Your task to perform on an android device: open app "Adobe Acrobat Reader: Edit PDF" (install if not already installed) Image 0: 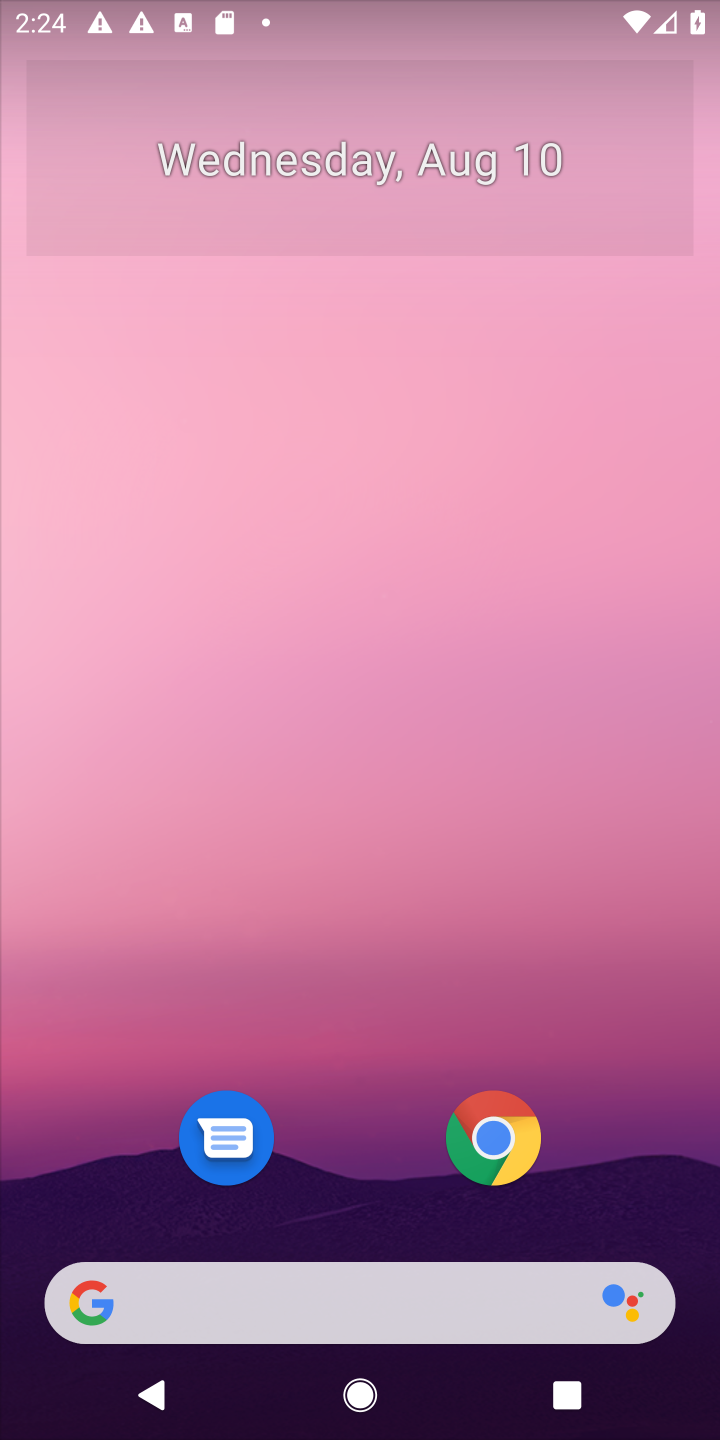
Step 0: press home button
Your task to perform on an android device: open app "Adobe Acrobat Reader: Edit PDF" (install if not already installed) Image 1: 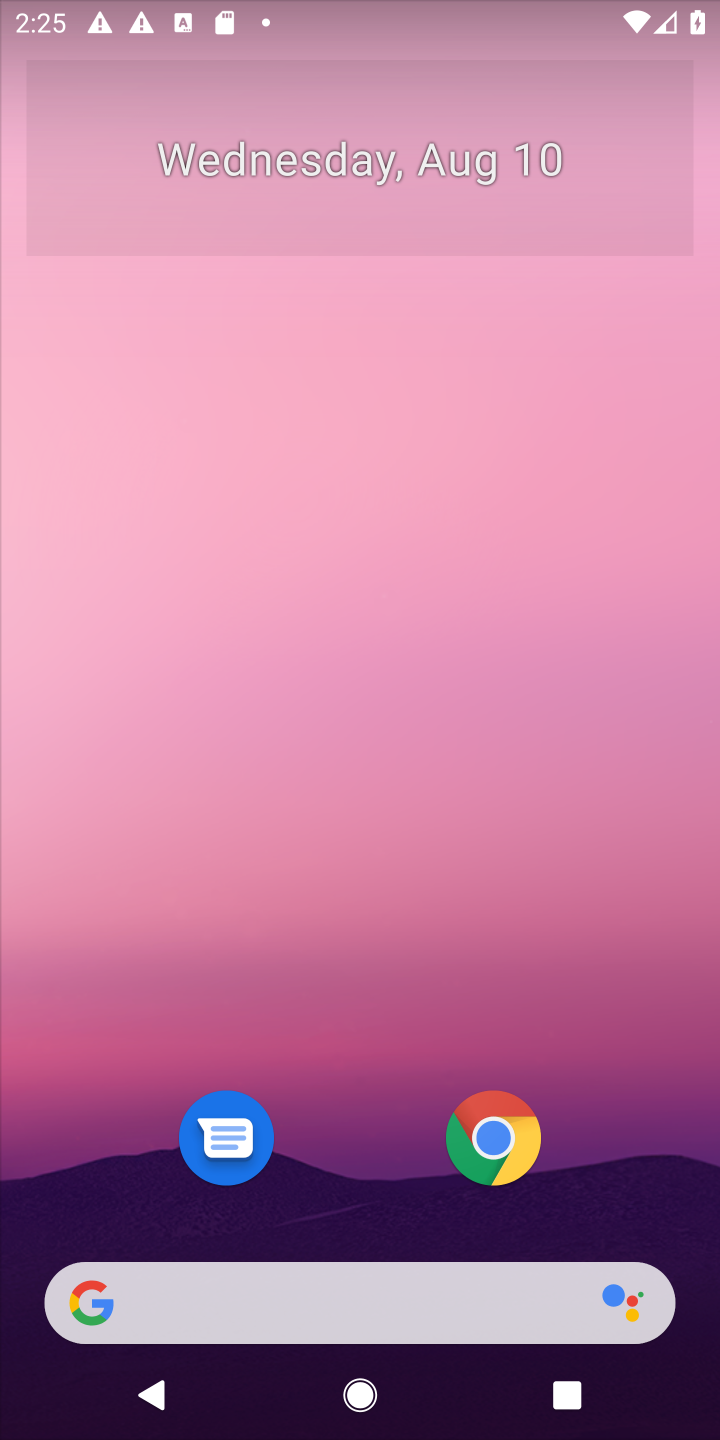
Step 1: drag from (640, 1126) to (665, 163)
Your task to perform on an android device: open app "Adobe Acrobat Reader: Edit PDF" (install if not already installed) Image 2: 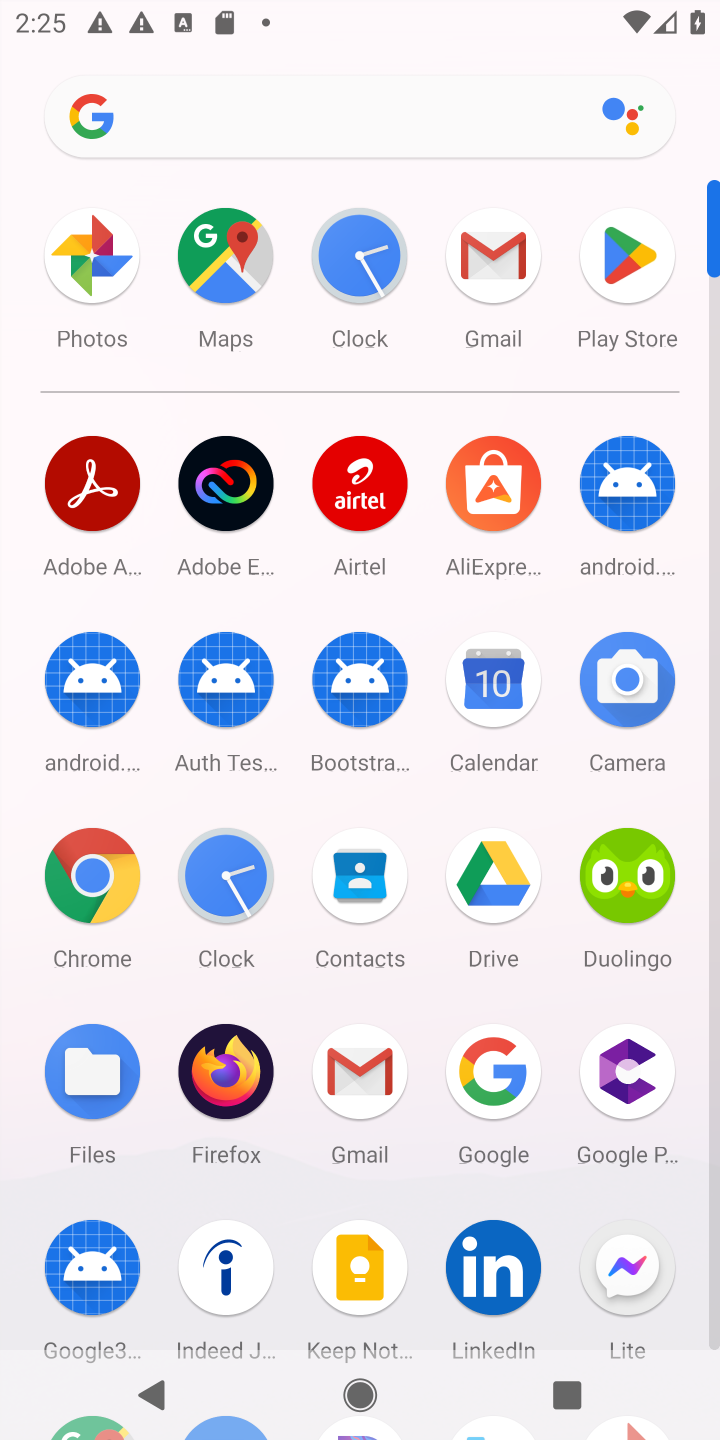
Step 2: click (629, 246)
Your task to perform on an android device: open app "Adobe Acrobat Reader: Edit PDF" (install if not already installed) Image 3: 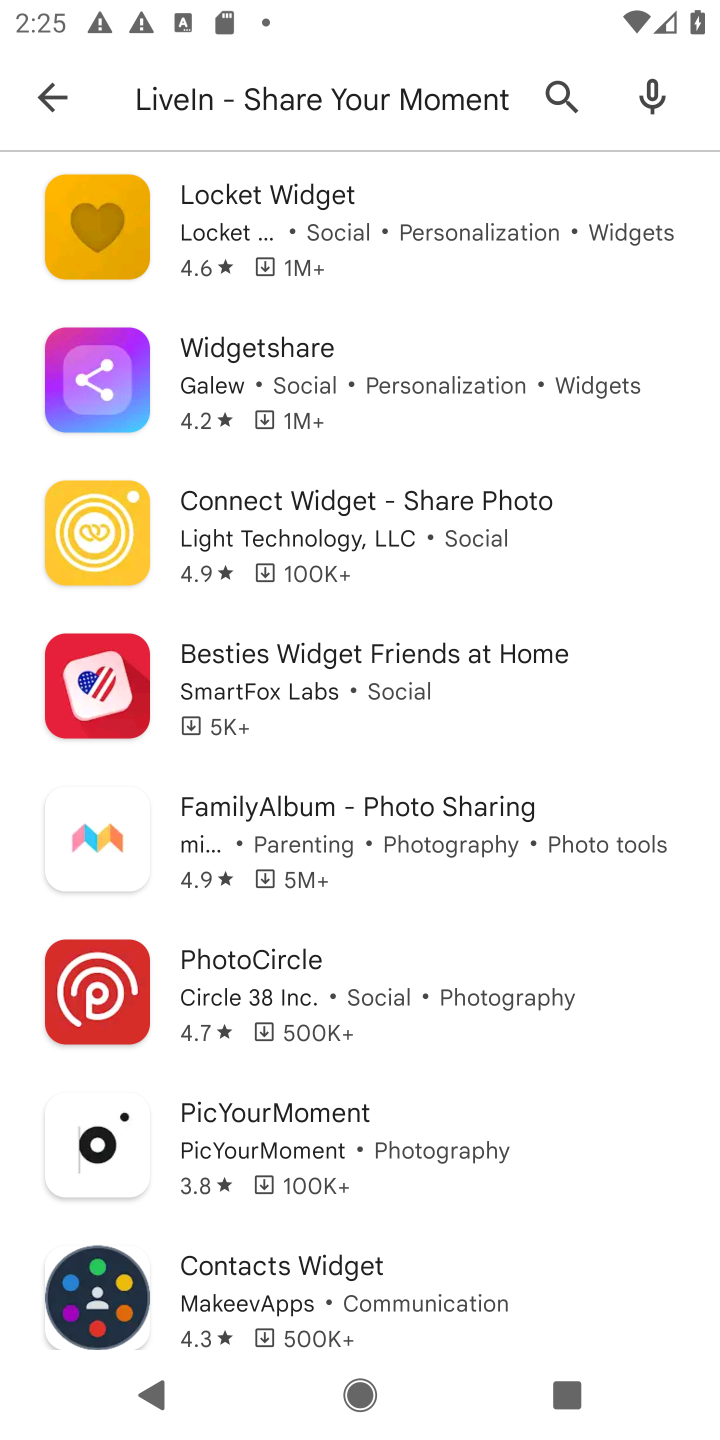
Step 3: click (559, 88)
Your task to perform on an android device: open app "Adobe Acrobat Reader: Edit PDF" (install if not already installed) Image 4: 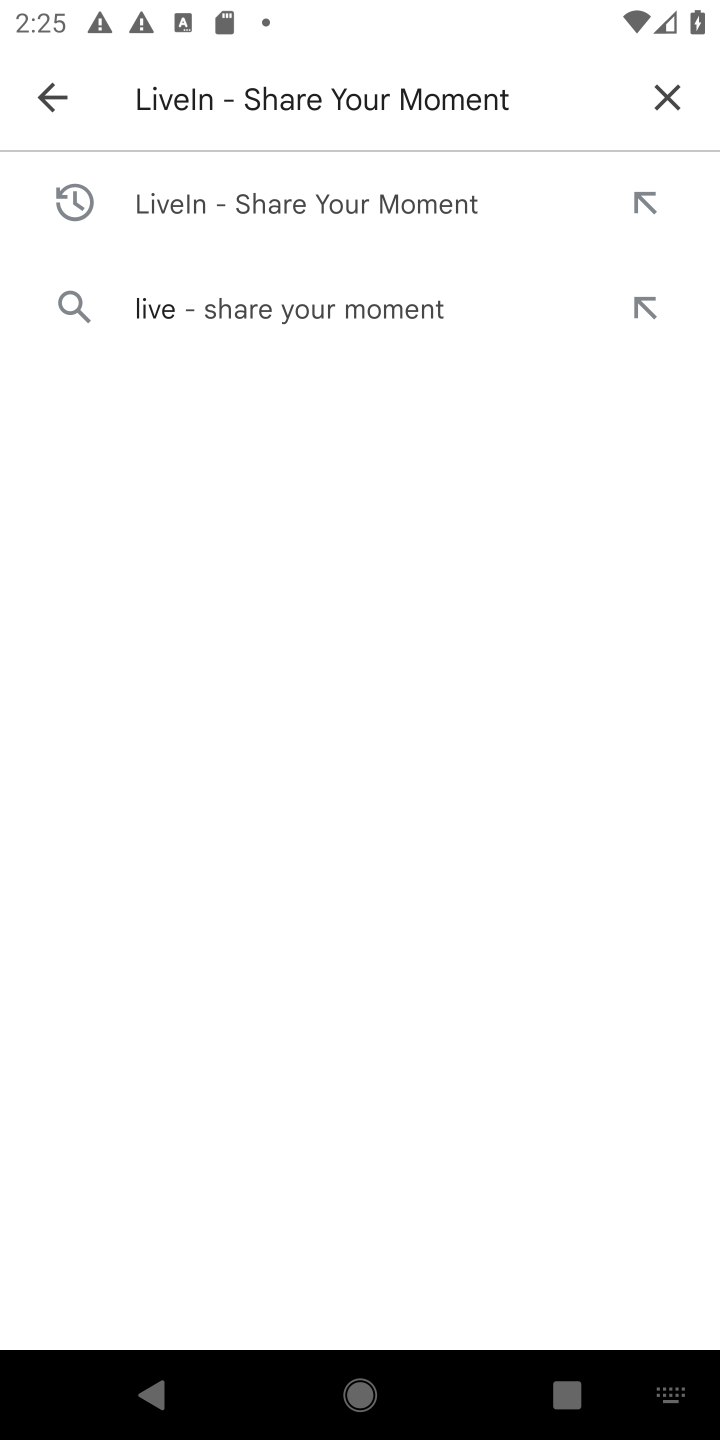
Step 4: click (664, 94)
Your task to perform on an android device: open app "Adobe Acrobat Reader: Edit PDF" (install if not already installed) Image 5: 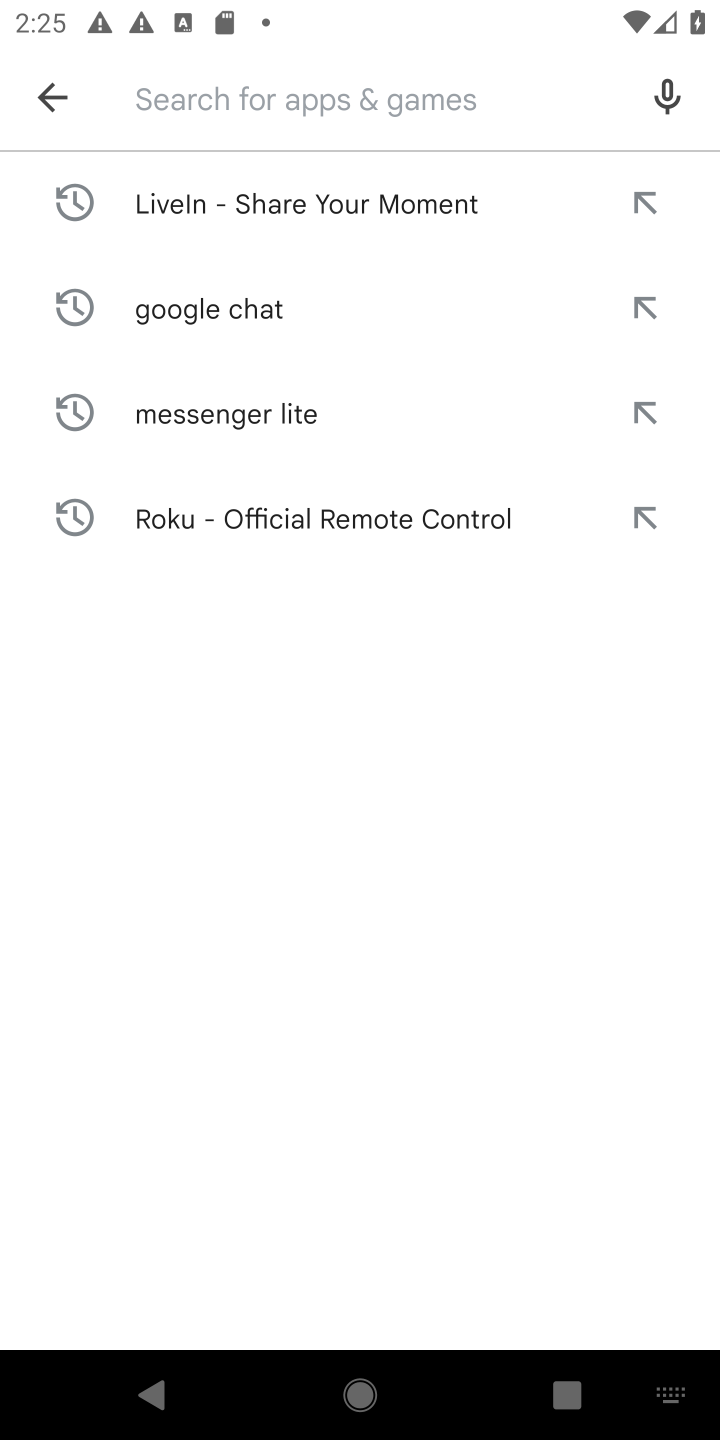
Step 5: click (427, 101)
Your task to perform on an android device: open app "Adobe Acrobat Reader: Edit PDF" (install if not already installed) Image 6: 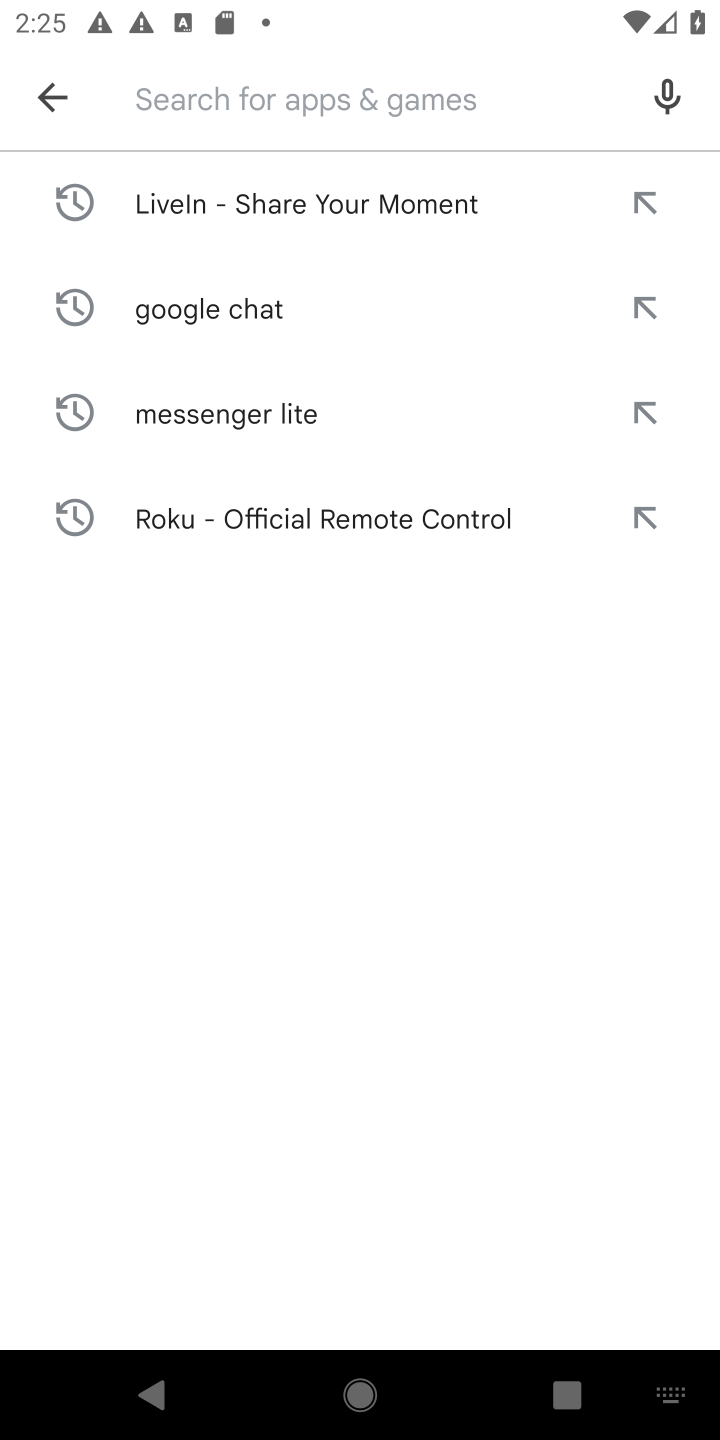
Step 6: type "Adobe Acrobat Reader"
Your task to perform on an android device: open app "Adobe Acrobat Reader: Edit PDF" (install if not already installed) Image 7: 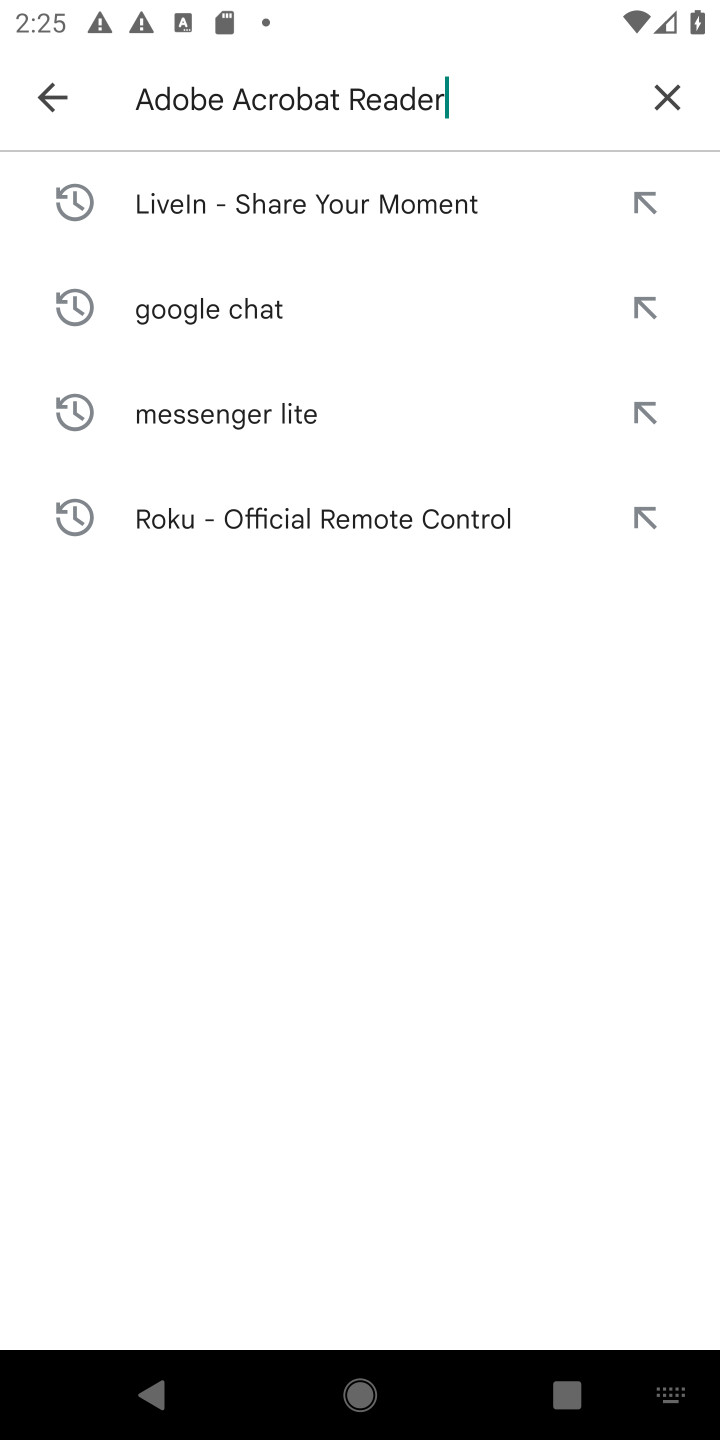
Step 7: press enter
Your task to perform on an android device: open app "Adobe Acrobat Reader: Edit PDF" (install if not already installed) Image 8: 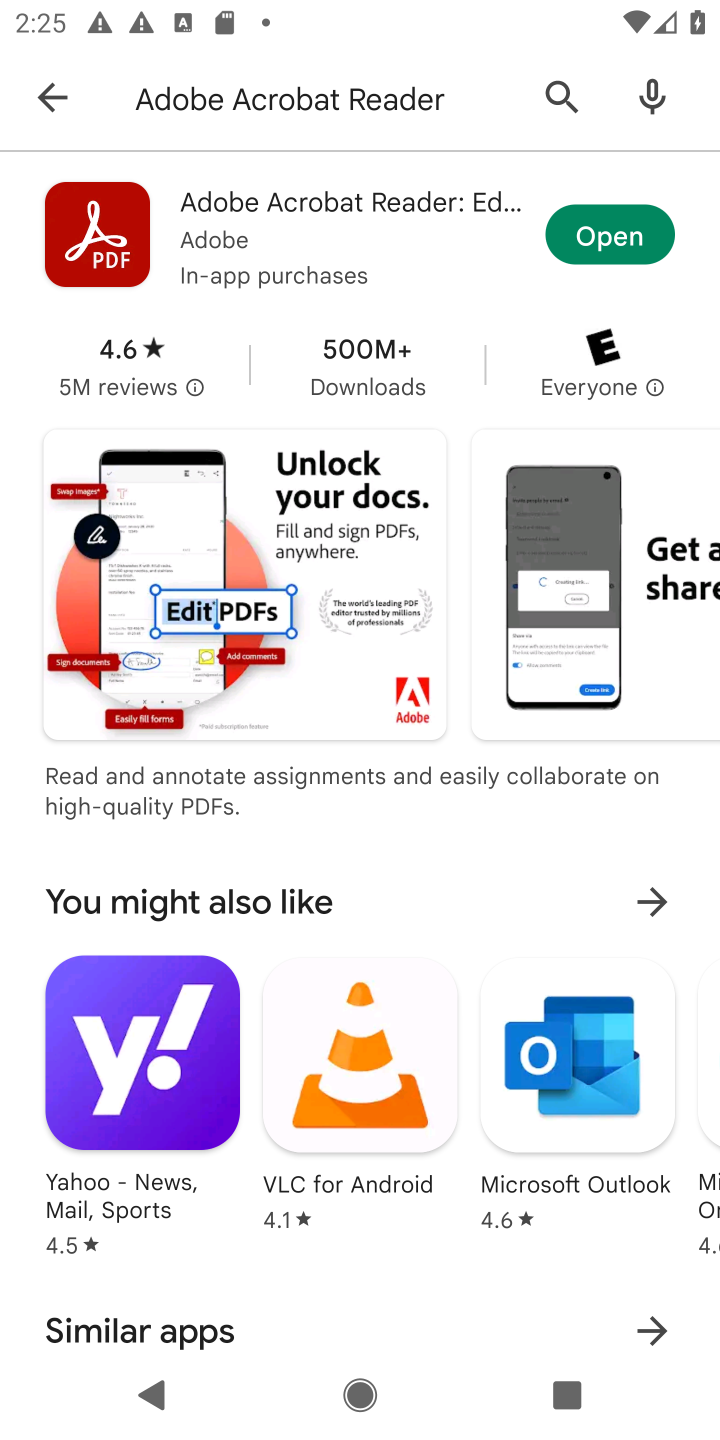
Step 8: click (612, 229)
Your task to perform on an android device: open app "Adobe Acrobat Reader: Edit PDF" (install if not already installed) Image 9: 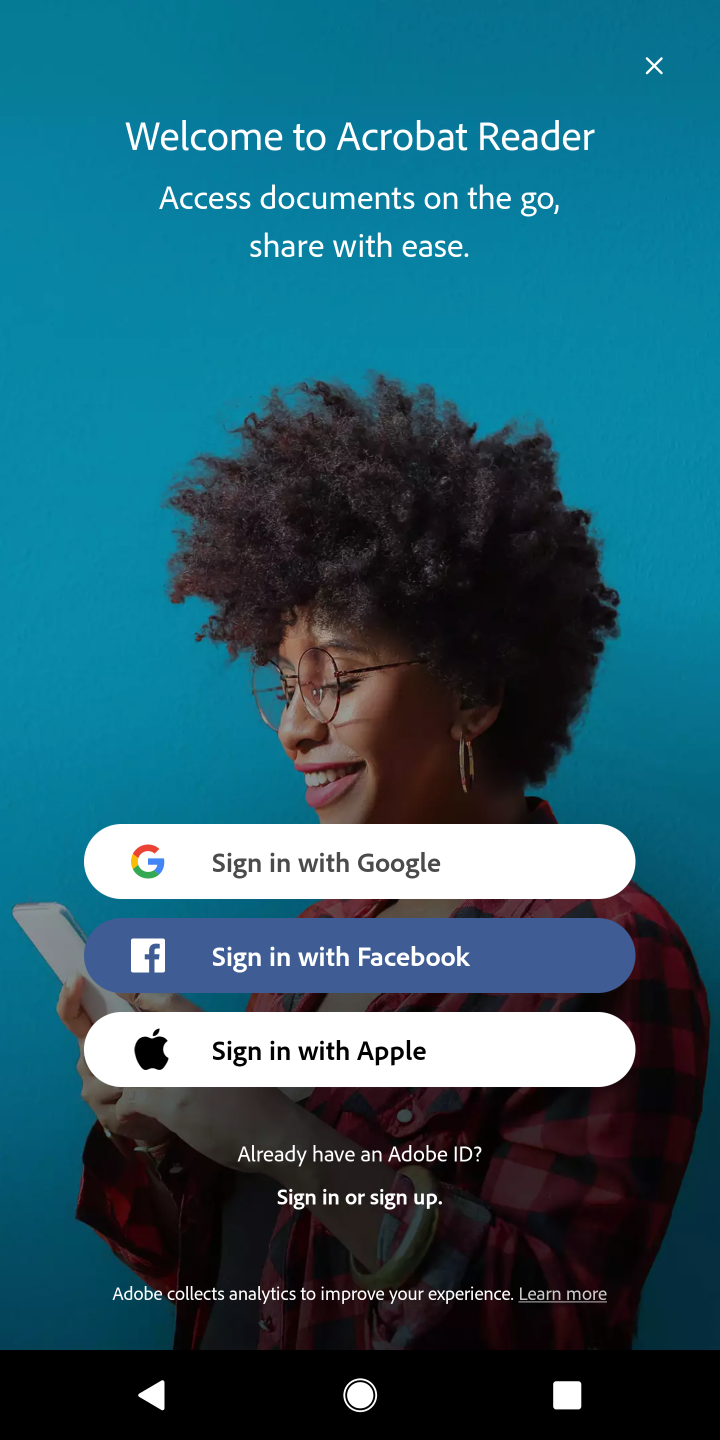
Step 9: task complete